Your task to perform on an android device: Search for seafood restaurants on Google Maps Image 0: 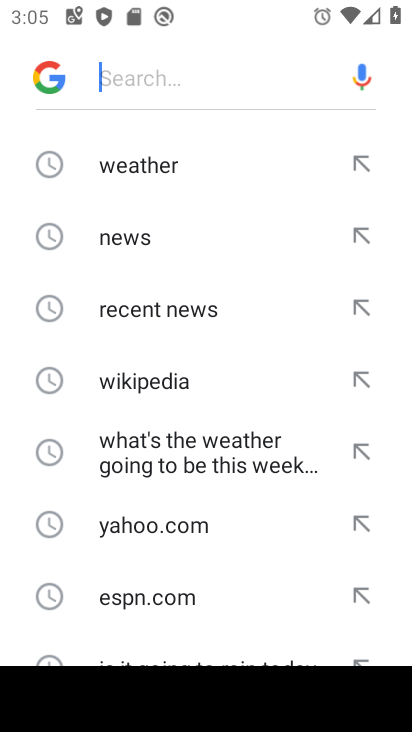
Step 0: press home button
Your task to perform on an android device: Search for seafood restaurants on Google Maps Image 1: 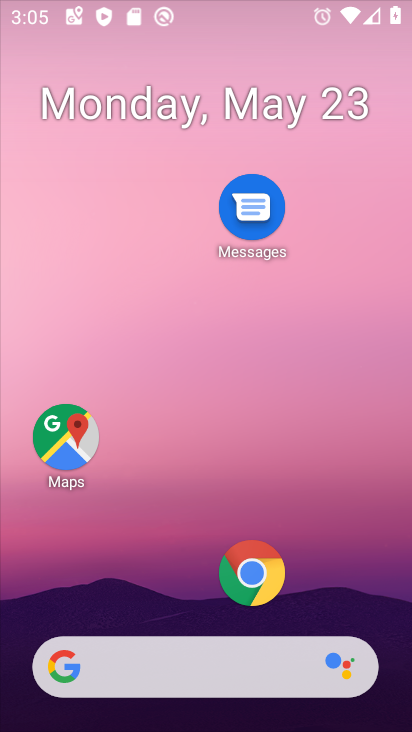
Step 1: drag from (305, 670) to (408, 0)
Your task to perform on an android device: Search for seafood restaurants on Google Maps Image 2: 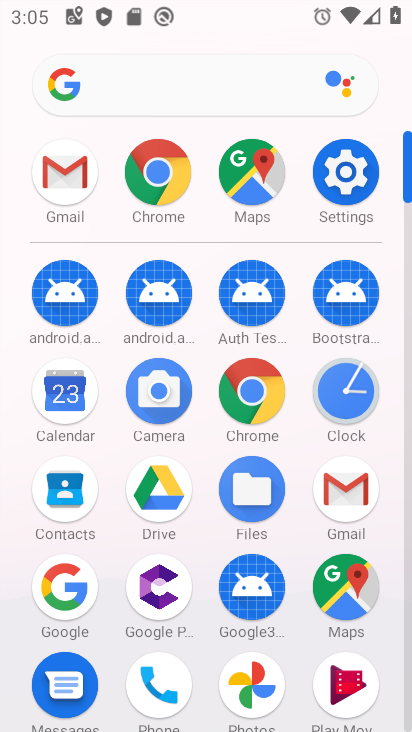
Step 2: click (356, 584)
Your task to perform on an android device: Search for seafood restaurants on Google Maps Image 3: 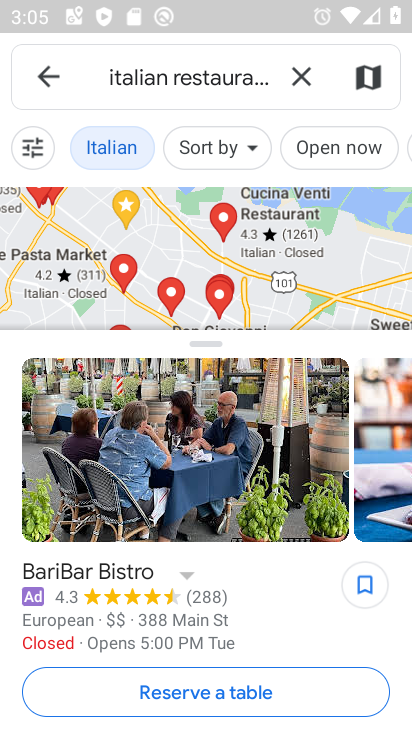
Step 3: click (301, 71)
Your task to perform on an android device: Search for seafood restaurants on Google Maps Image 4: 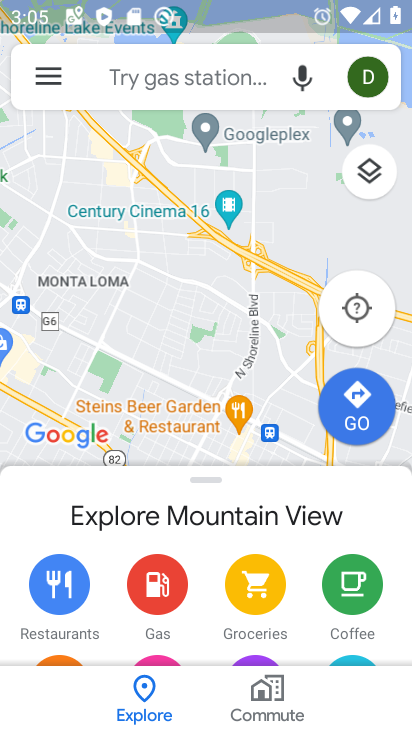
Step 4: click (168, 71)
Your task to perform on an android device: Search for seafood restaurants on Google Maps Image 5: 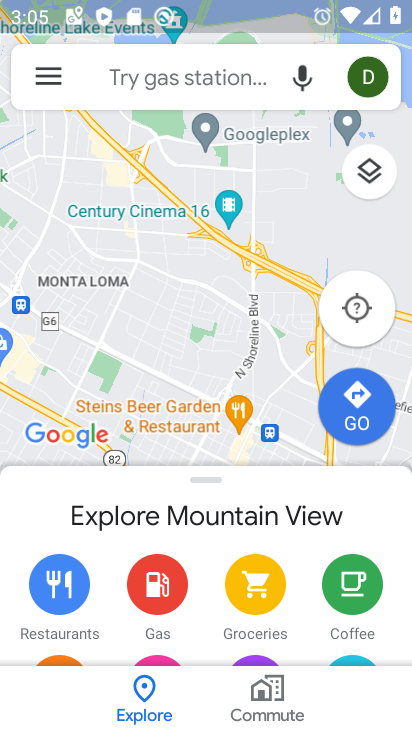
Step 5: click (168, 71)
Your task to perform on an android device: Search for seafood restaurants on Google Maps Image 6: 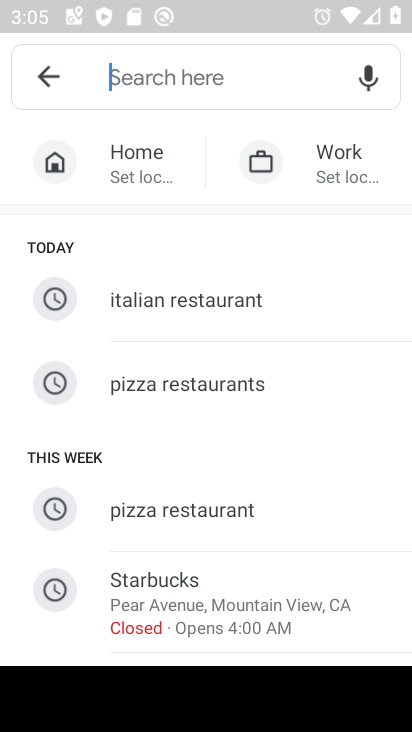
Step 6: type "seafood restaurant"
Your task to perform on an android device: Search for seafood restaurants on Google Maps Image 7: 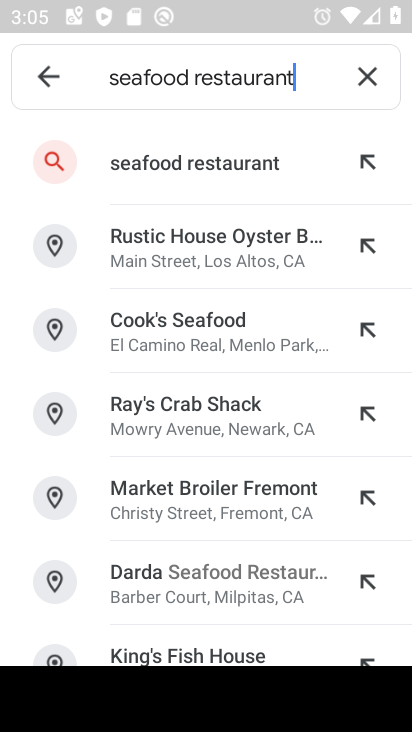
Step 7: click (291, 176)
Your task to perform on an android device: Search for seafood restaurants on Google Maps Image 8: 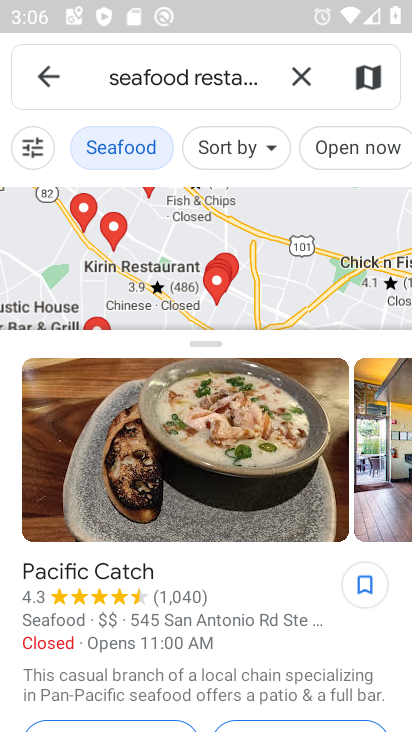
Step 8: task complete